Your task to perform on an android device: Go to Wikipedia Image 0: 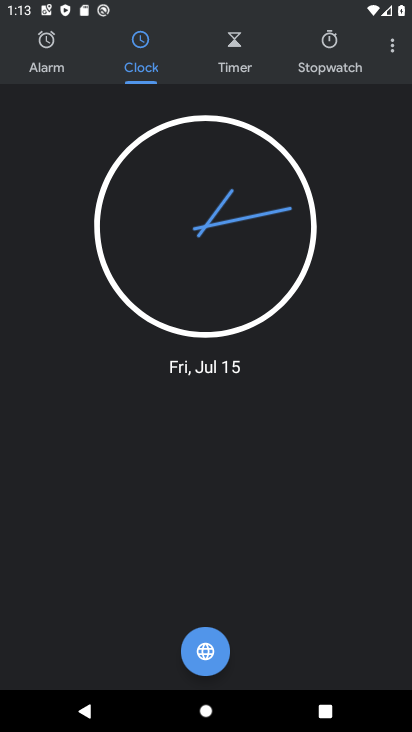
Step 0: press home button
Your task to perform on an android device: Go to Wikipedia Image 1: 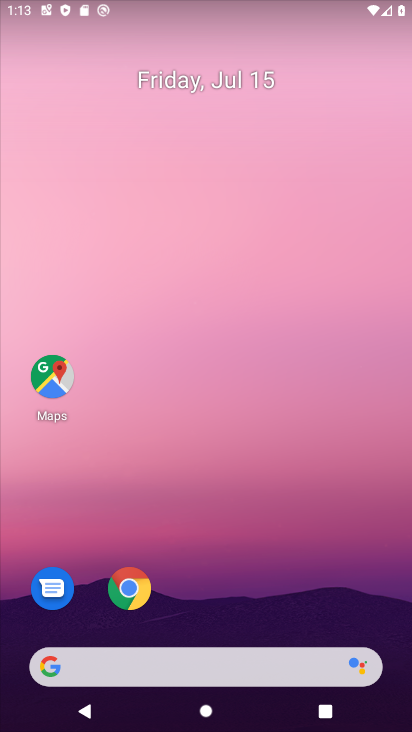
Step 1: click (129, 589)
Your task to perform on an android device: Go to Wikipedia Image 2: 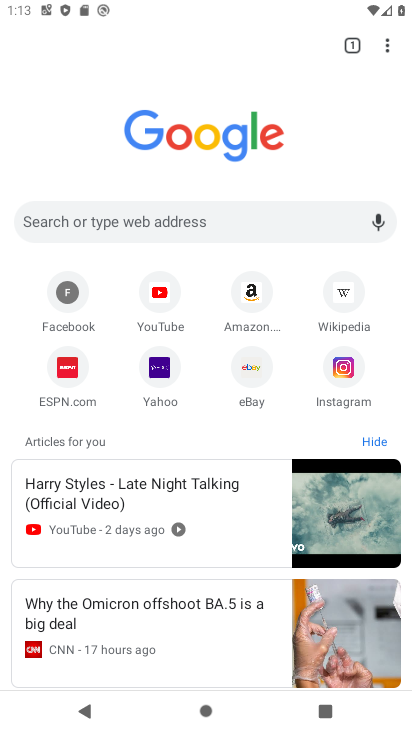
Step 2: click (142, 222)
Your task to perform on an android device: Go to Wikipedia Image 3: 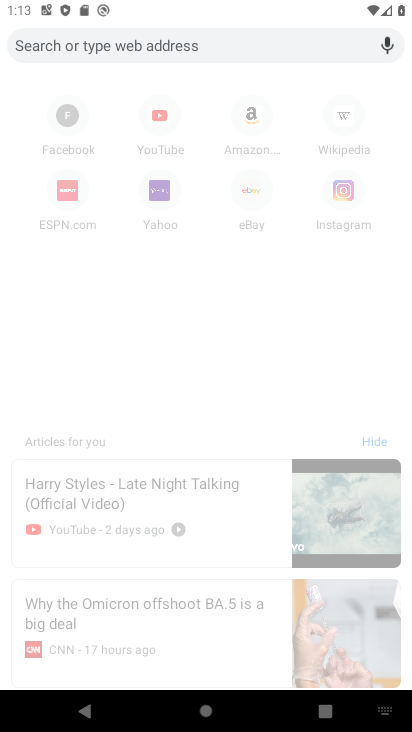
Step 3: type "wikipedia"
Your task to perform on an android device: Go to Wikipedia Image 4: 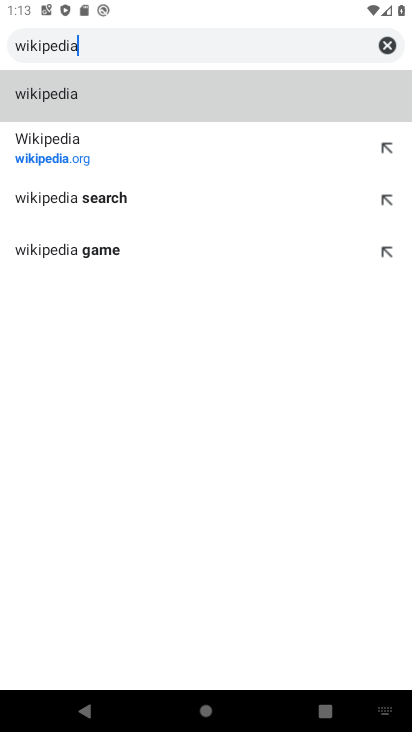
Step 4: click (127, 91)
Your task to perform on an android device: Go to Wikipedia Image 5: 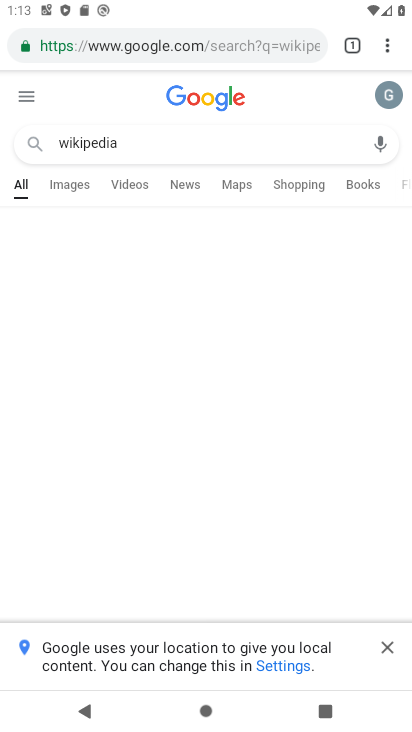
Step 5: click (391, 647)
Your task to perform on an android device: Go to Wikipedia Image 6: 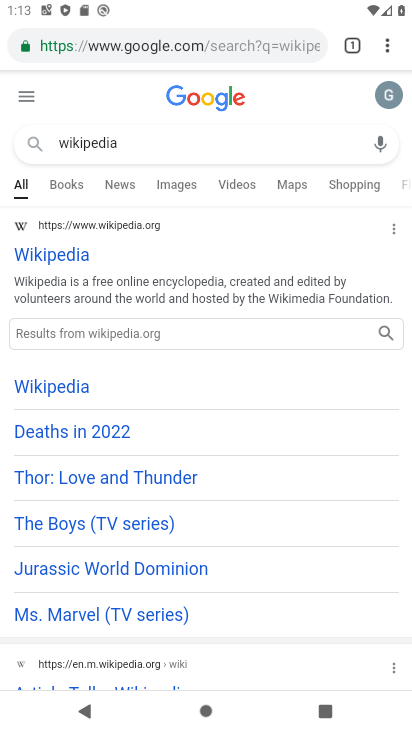
Step 6: click (48, 226)
Your task to perform on an android device: Go to Wikipedia Image 7: 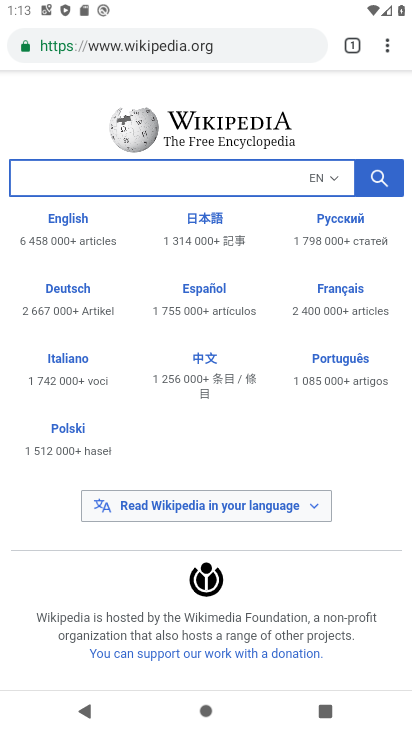
Step 7: task complete